Your task to perform on an android device: toggle airplane mode Image 0: 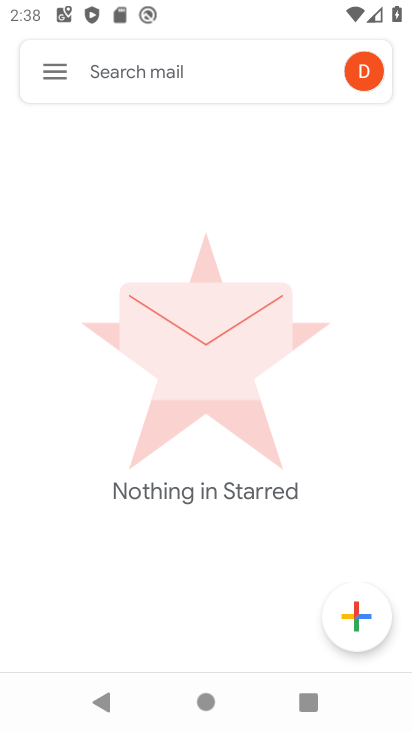
Step 0: press back button
Your task to perform on an android device: toggle airplane mode Image 1: 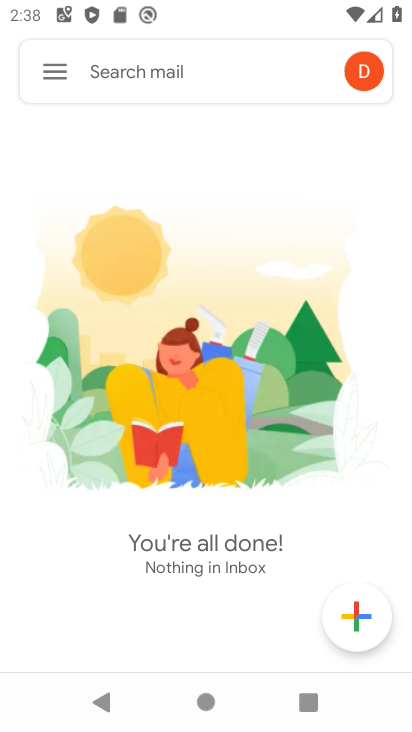
Step 1: press back button
Your task to perform on an android device: toggle airplane mode Image 2: 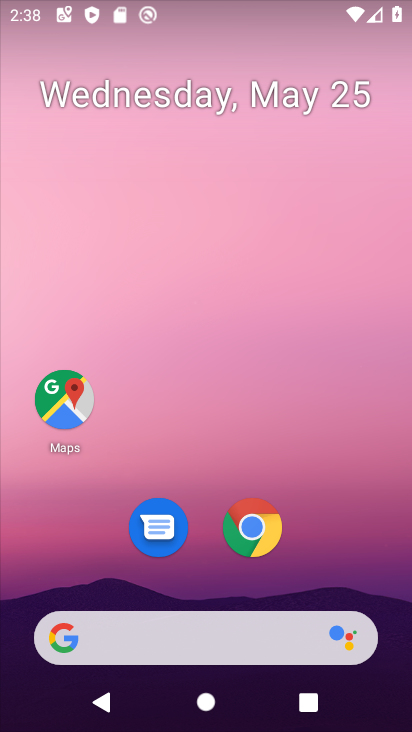
Step 2: drag from (321, 11) to (226, 505)
Your task to perform on an android device: toggle airplane mode Image 3: 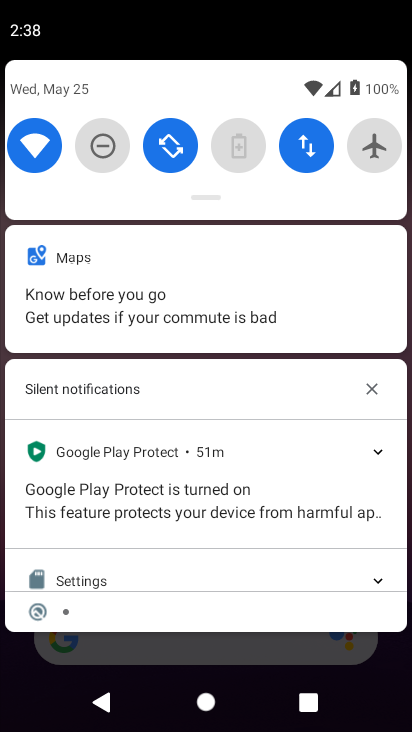
Step 3: click (383, 133)
Your task to perform on an android device: toggle airplane mode Image 4: 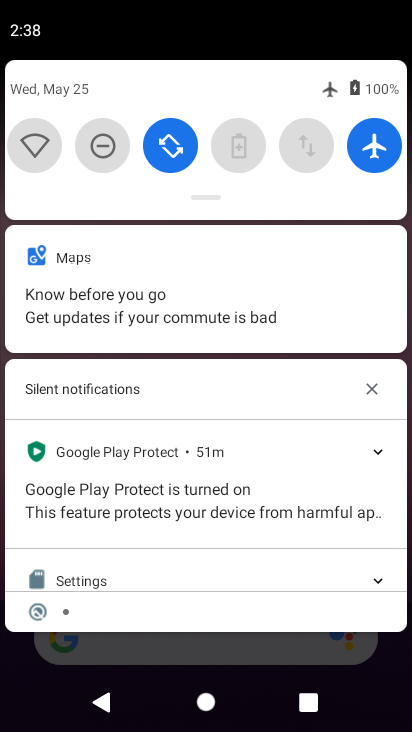
Step 4: task complete